Your task to perform on an android device: change alarm snooze length Image 0: 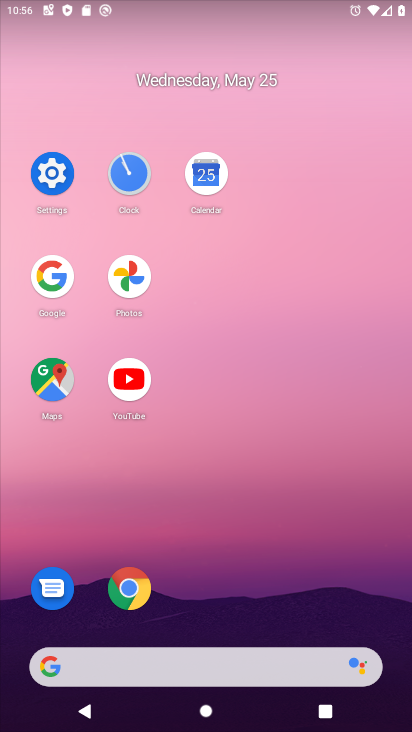
Step 0: click (128, 176)
Your task to perform on an android device: change alarm snooze length Image 1: 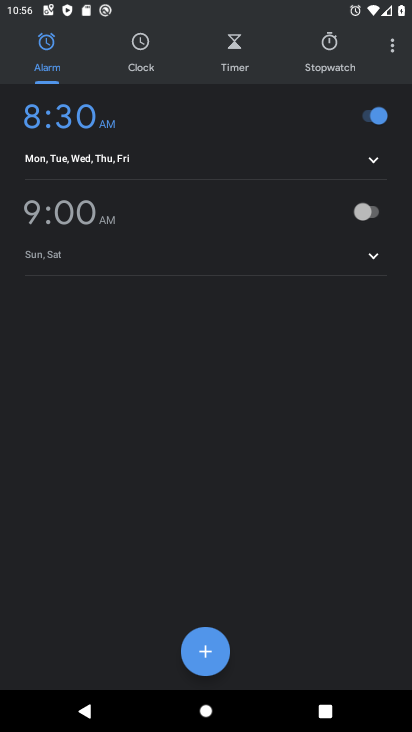
Step 1: click (389, 45)
Your task to perform on an android device: change alarm snooze length Image 2: 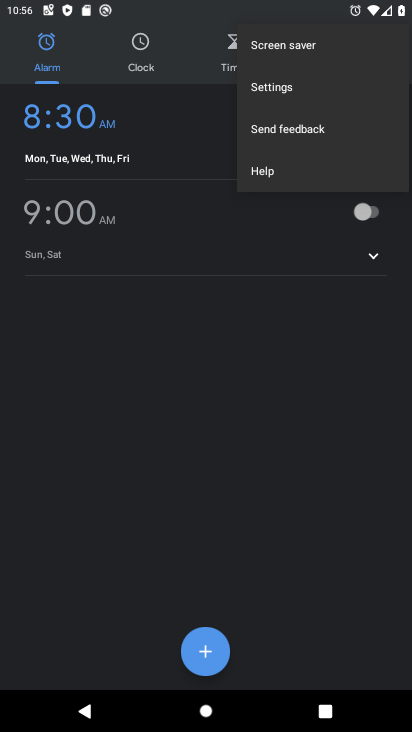
Step 2: click (280, 82)
Your task to perform on an android device: change alarm snooze length Image 3: 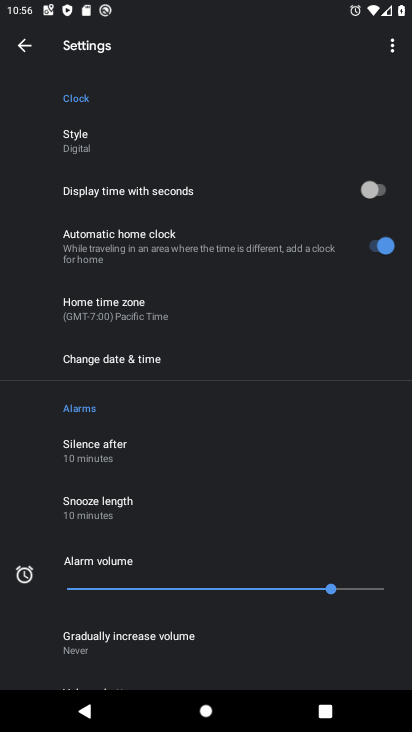
Step 3: click (175, 499)
Your task to perform on an android device: change alarm snooze length Image 4: 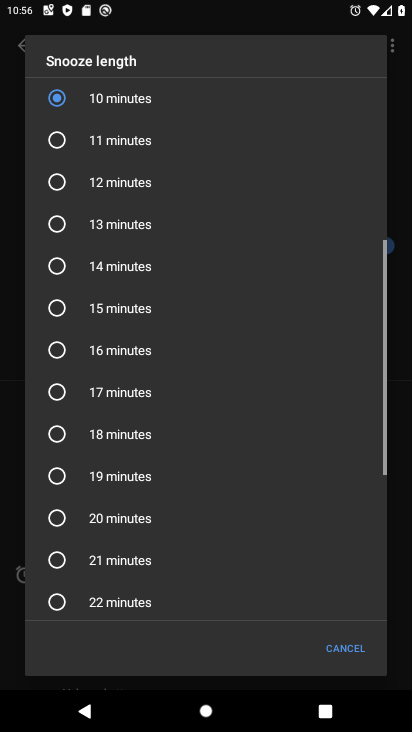
Step 4: click (90, 141)
Your task to perform on an android device: change alarm snooze length Image 5: 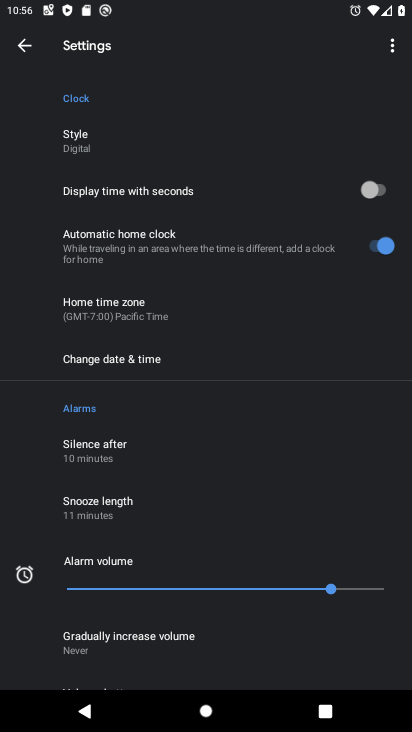
Step 5: task complete